Your task to perform on an android device: Open Google Image 0: 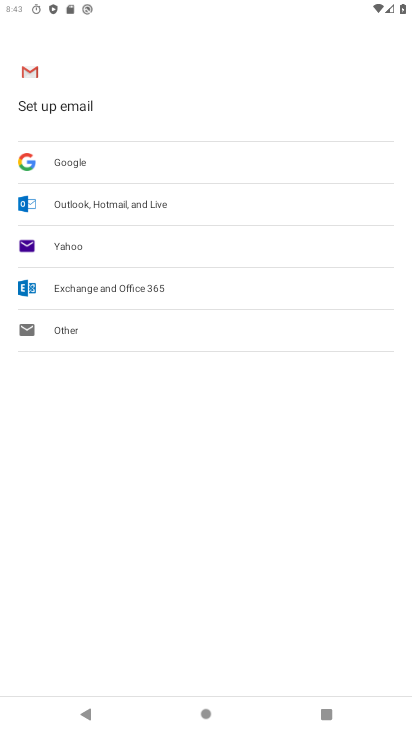
Step 0: press home button
Your task to perform on an android device: Open Google Image 1: 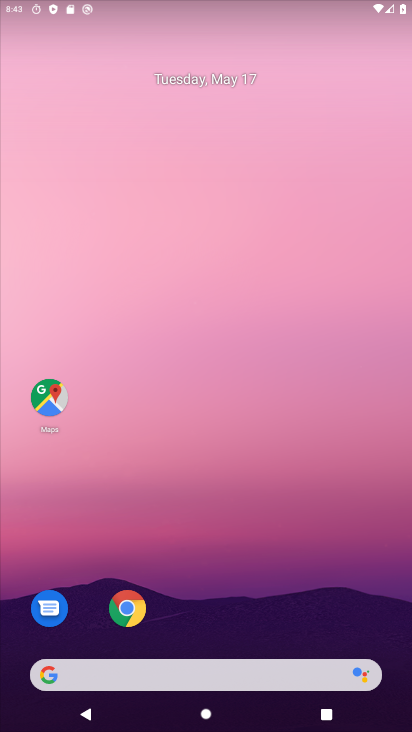
Step 1: drag from (253, 466) to (239, 91)
Your task to perform on an android device: Open Google Image 2: 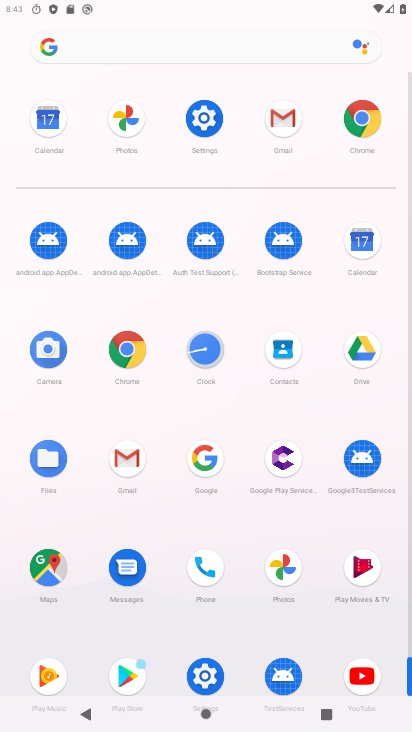
Step 2: click (200, 457)
Your task to perform on an android device: Open Google Image 3: 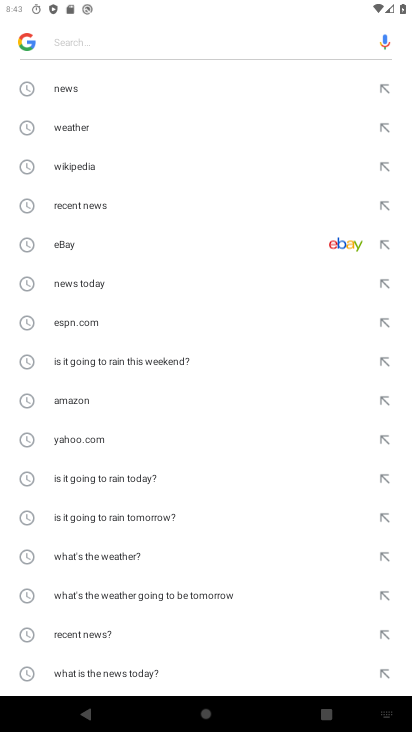
Step 3: task complete